Your task to perform on an android device: Open Chrome and go to settings Image 0: 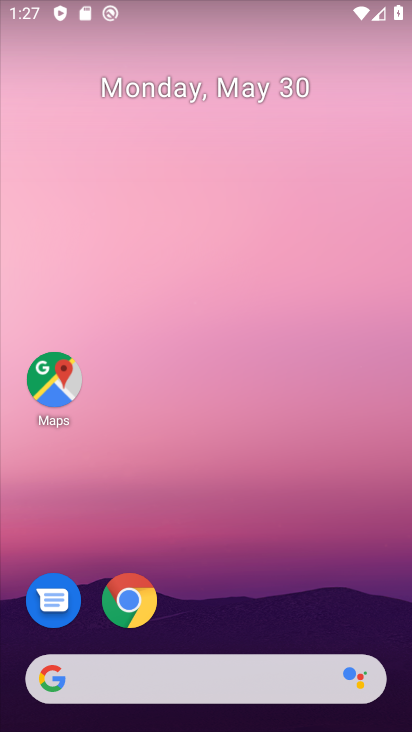
Step 0: click (116, 613)
Your task to perform on an android device: Open Chrome and go to settings Image 1: 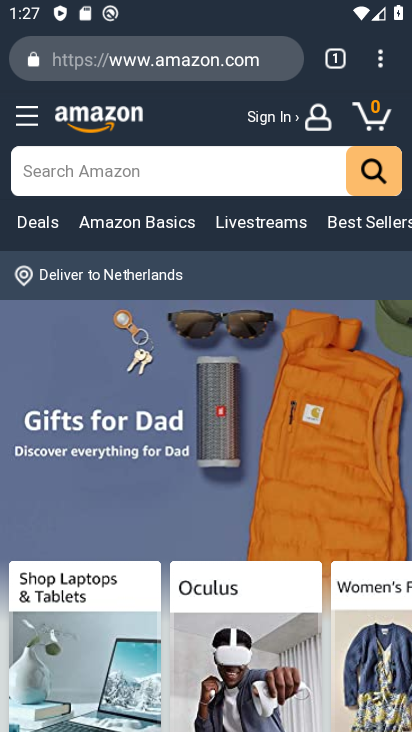
Step 1: click (382, 63)
Your task to perform on an android device: Open Chrome and go to settings Image 2: 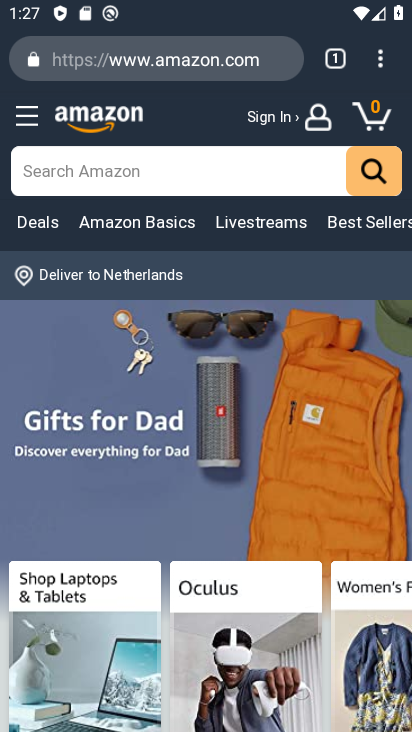
Step 2: task complete